Your task to perform on an android device: toggle wifi Image 0: 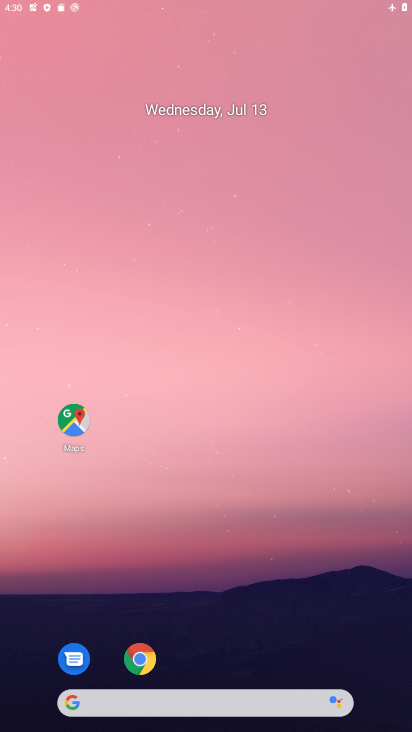
Step 0: press home button
Your task to perform on an android device: toggle wifi Image 1: 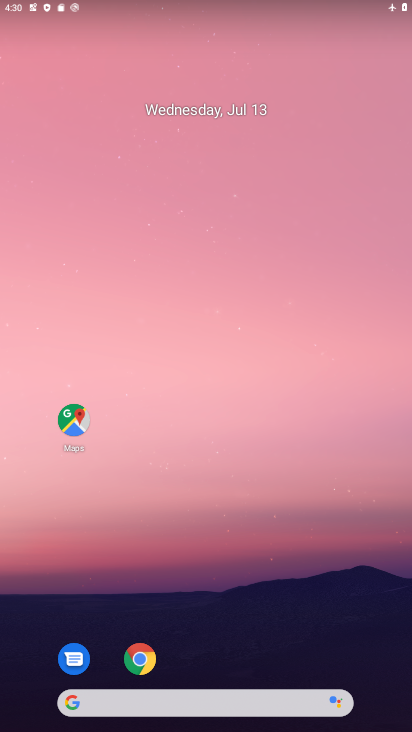
Step 1: drag from (264, 375) to (293, 137)
Your task to perform on an android device: toggle wifi Image 2: 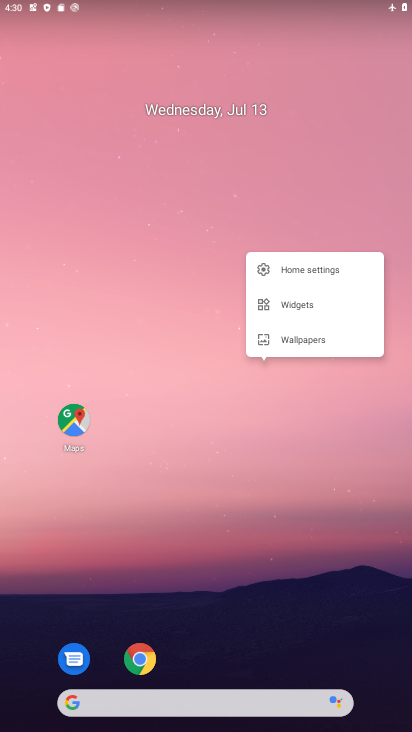
Step 2: drag from (209, 659) to (267, 142)
Your task to perform on an android device: toggle wifi Image 3: 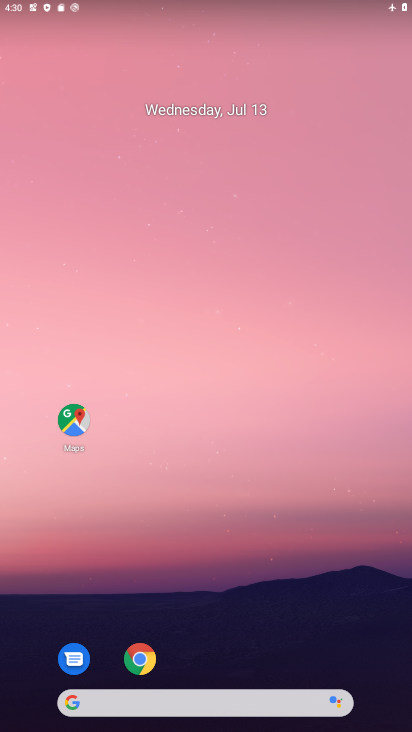
Step 3: drag from (224, 4) to (216, 424)
Your task to perform on an android device: toggle wifi Image 4: 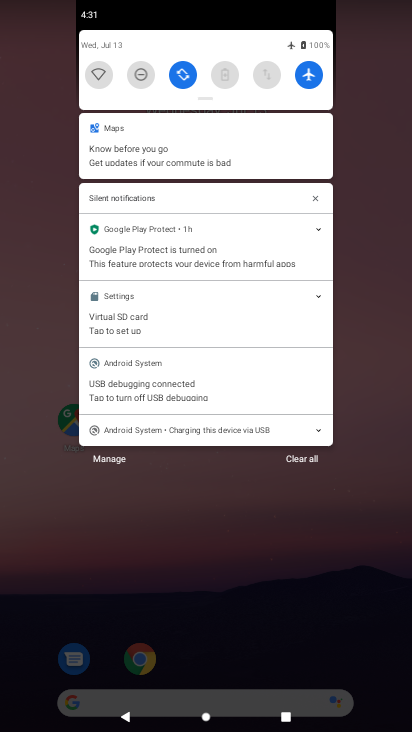
Step 4: click (99, 70)
Your task to perform on an android device: toggle wifi Image 5: 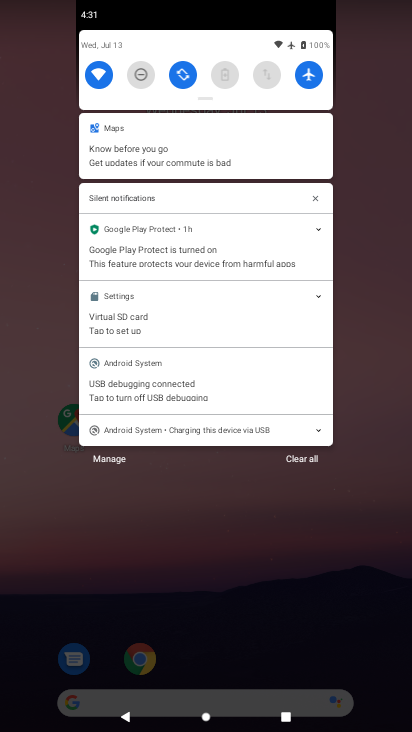
Step 5: task complete